Your task to perform on an android device: Open Google Chrome and click the shortcut for Amazon.com Image 0: 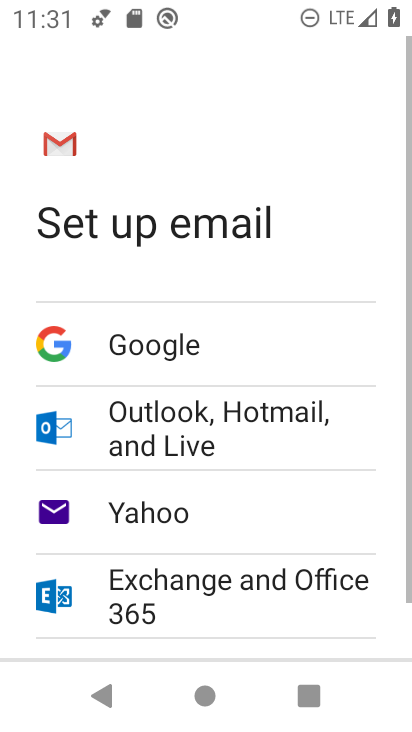
Step 0: press home button
Your task to perform on an android device: Open Google Chrome and click the shortcut for Amazon.com Image 1: 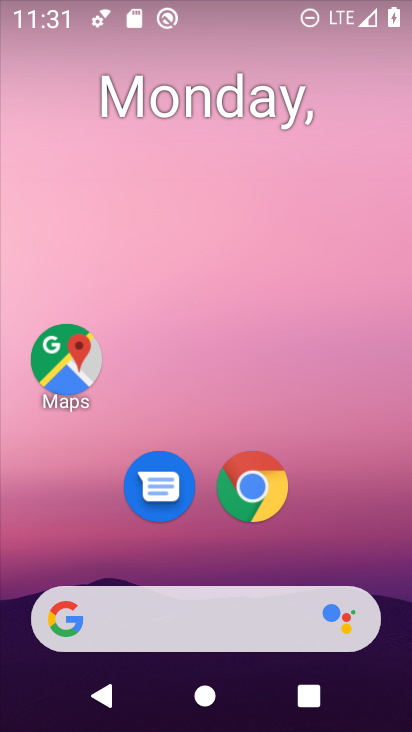
Step 1: click (268, 495)
Your task to perform on an android device: Open Google Chrome and click the shortcut for Amazon.com Image 2: 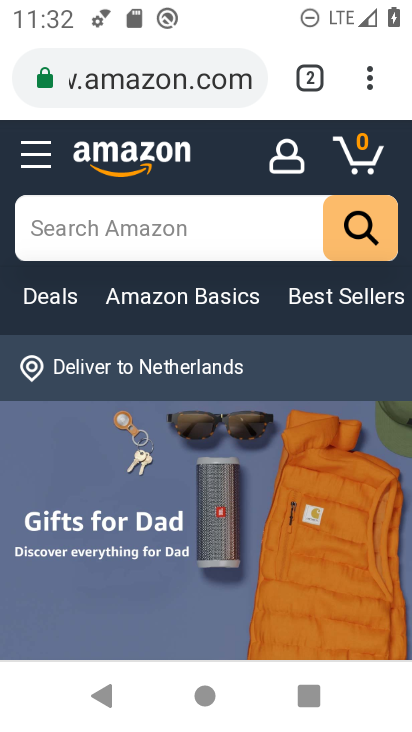
Step 2: task complete